Your task to perform on an android device: Go to Android settings Image 0: 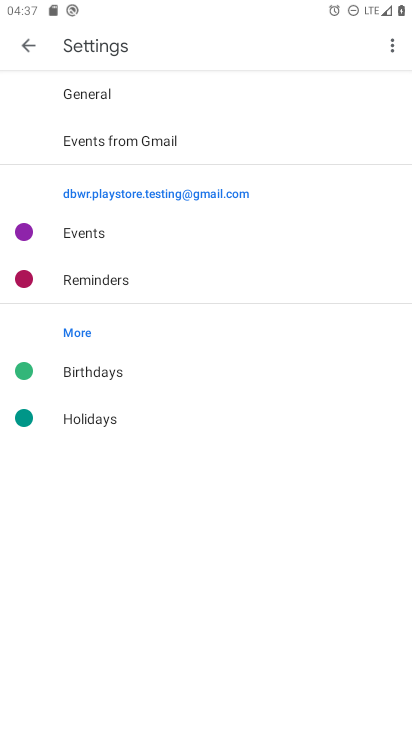
Step 0: press back button
Your task to perform on an android device: Go to Android settings Image 1: 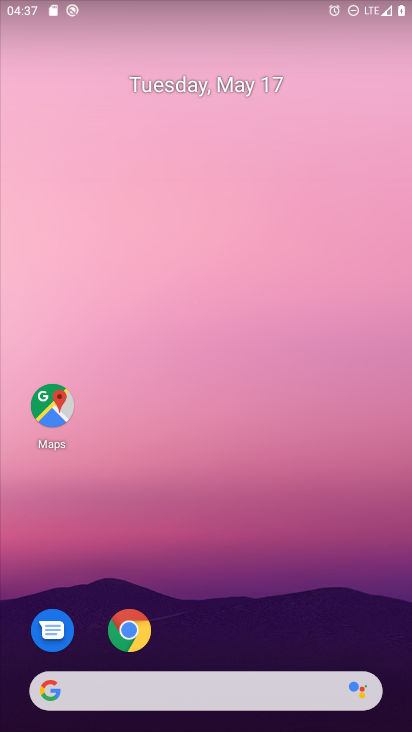
Step 1: drag from (205, 576) to (291, 107)
Your task to perform on an android device: Go to Android settings Image 2: 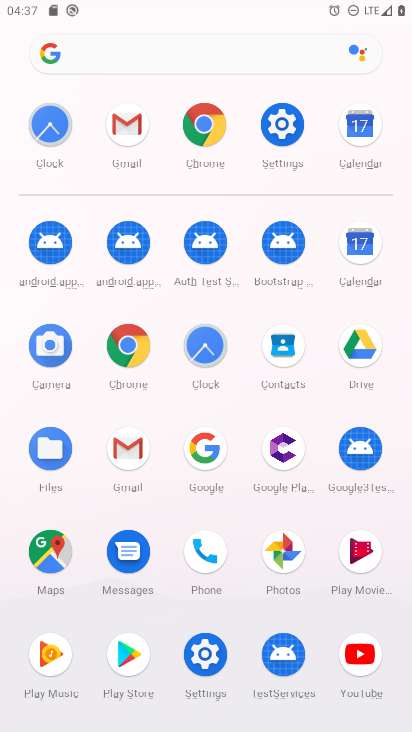
Step 2: click (278, 124)
Your task to perform on an android device: Go to Android settings Image 3: 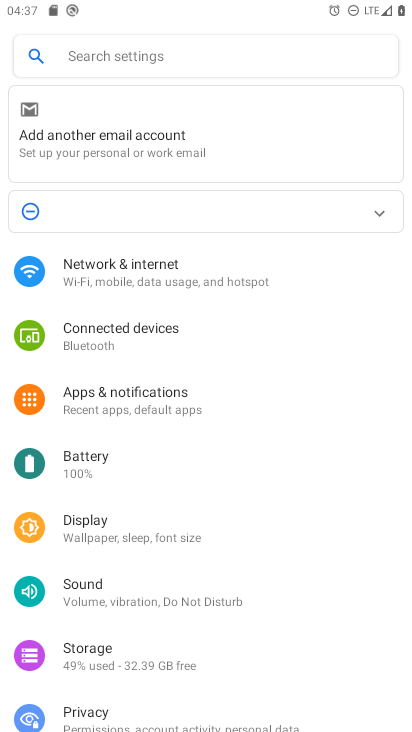
Step 3: drag from (108, 635) to (163, 245)
Your task to perform on an android device: Go to Android settings Image 4: 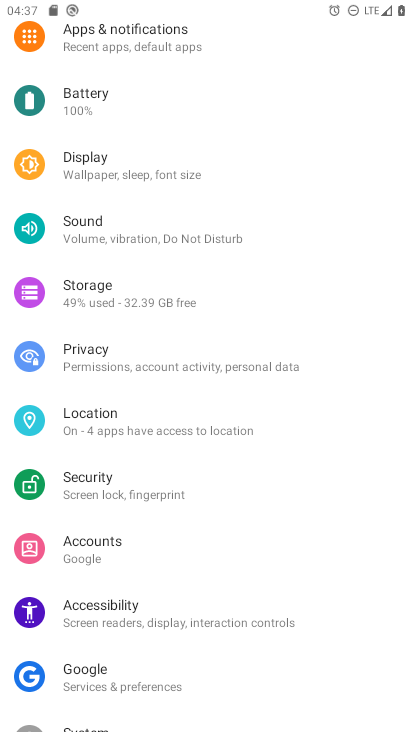
Step 4: drag from (143, 595) to (264, 1)
Your task to perform on an android device: Go to Android settings Image 5: 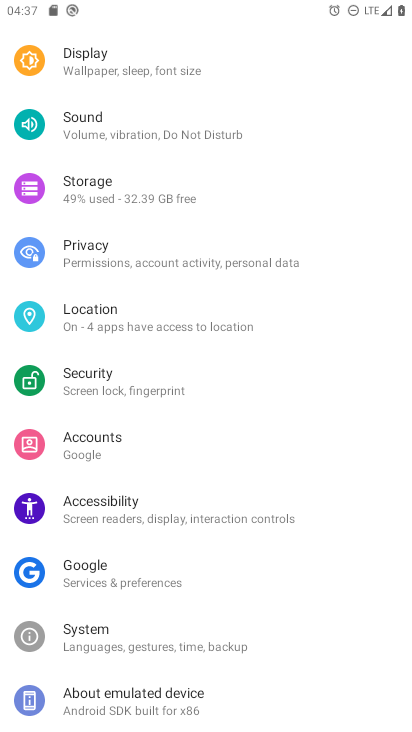
Step 5: click (109, 703)
Your task to perform on an android device: Go to Android settings Image 6: 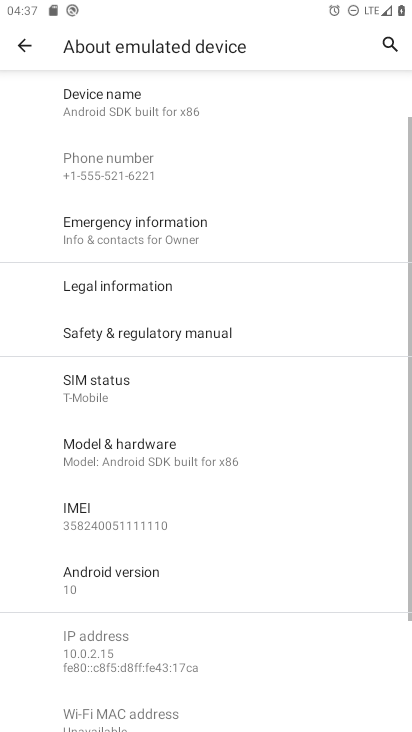
Step 6: click (146, 564)
Your task to perform on an android device: Go to Android settings Image 7: 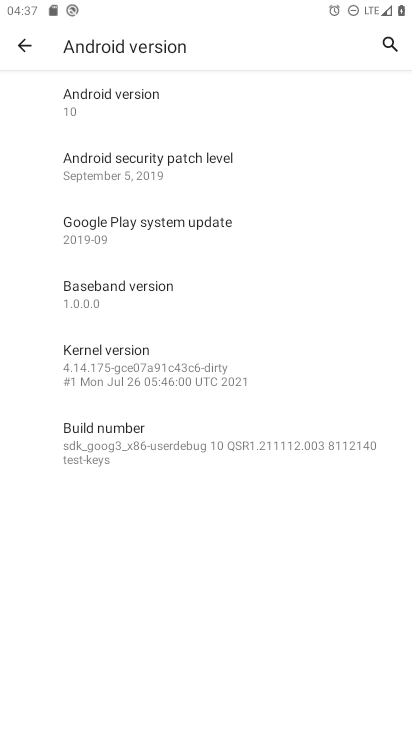
Step 7: task complete